Your task to perform on an android device: Open settings Image 0: 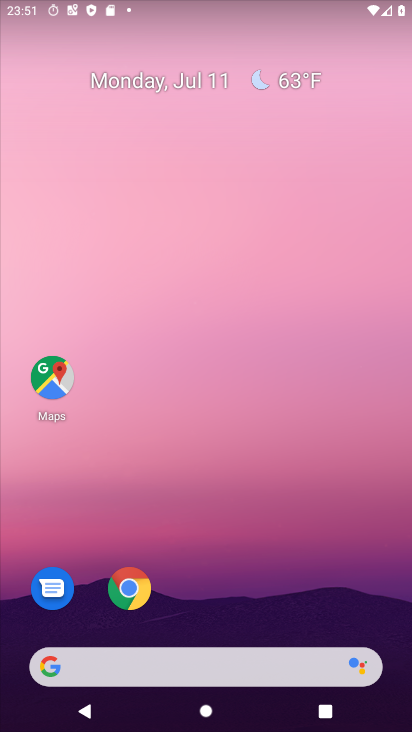
Step 0: drag from (259, 723) to (238, 149)
Your task to perform on an android device: Open settings Image 1: 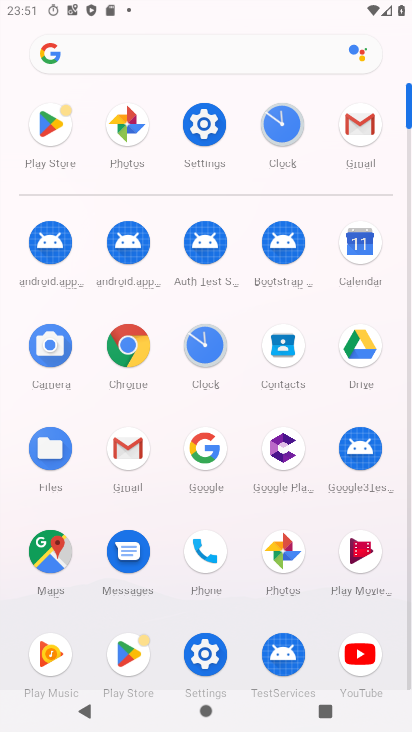
Step 1: click (209, 127)
Your task to perform on an android device: Open settings Image 2: 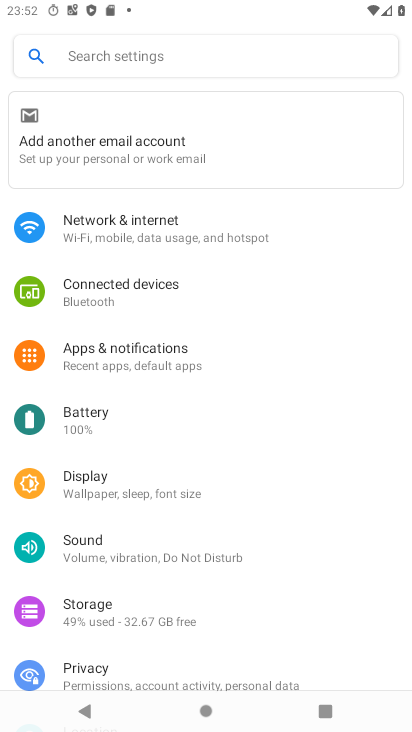
Step 2: task complete